Your task to perform on an android device: Open Google Chrome and open the bookmarks view Image 0: 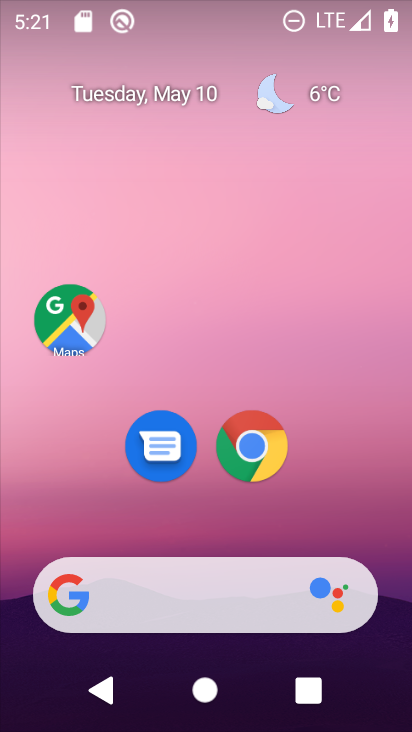
Step 0: click (256, 452)
Your task to perform on an android device: Open Google Chrome and open the bookmarks view Image 1: 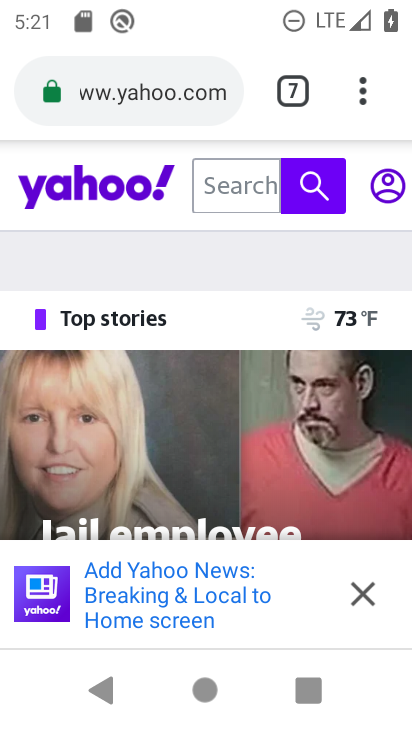
Step 1: click (361, 101)
Your task to perform on an android device: Open Google Chrome and open the bookmarks view Image 2: 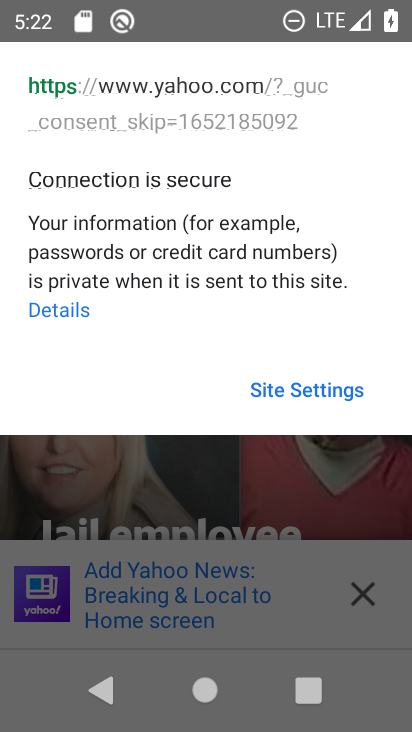
Step 2: click (246, 480)
Your task to perform on an android device: Open Google Chrome and open the bookmarks view Image 3: 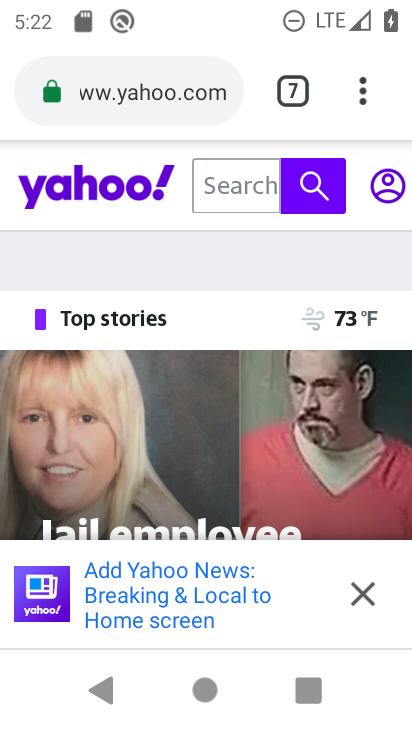
Step 3: click (364, 96)
Your task to perform on an android device: Open Google Chrome and open the bookmarks view Image 4: 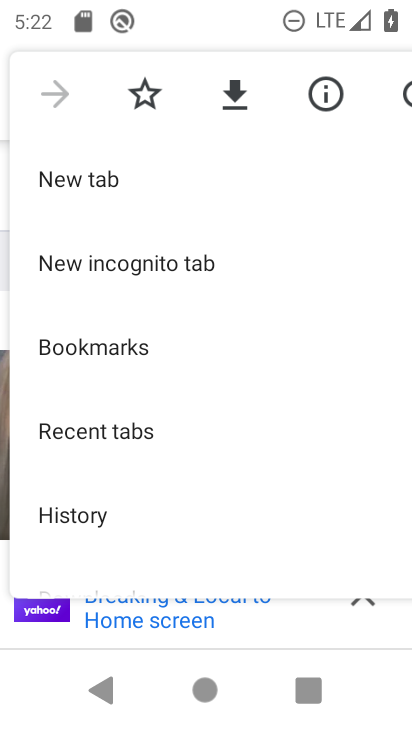
Step 4: click (111, 335)
Your task to perform on an android device: Open Google Chrome and open the bookmarks view Image 5: 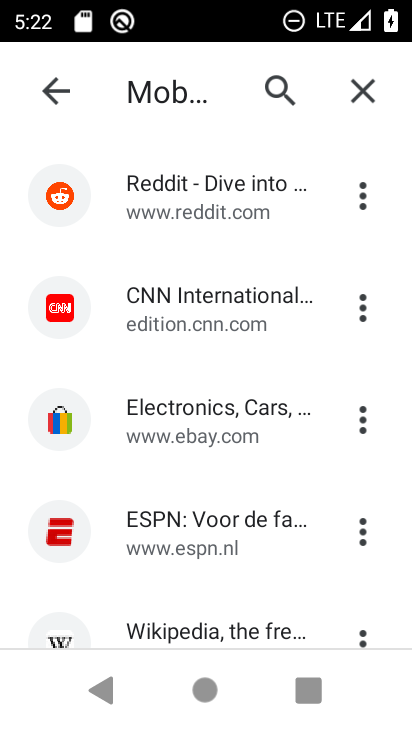
Step 5: click (212, 308)
Your task to perform on an android device: Open Google Chrome and open the bookmarks view Image 6: 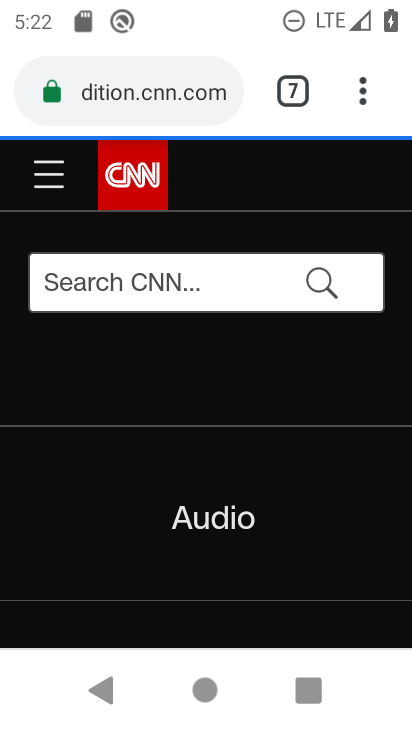
Step 6: task complete